Your task to perform on an android device: Open Google Image 0: 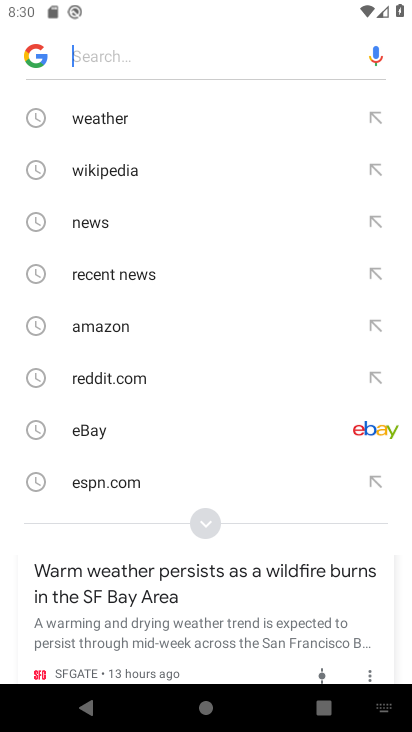
Step 0: press home button
Your task to perform on an android device: Open Google Image 1: 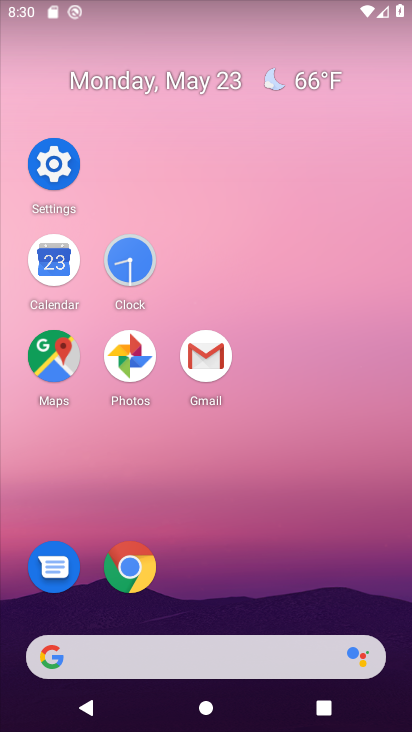
Step 1: click (281, 53)
Your task to perform on an android device: Open Google Image 2: 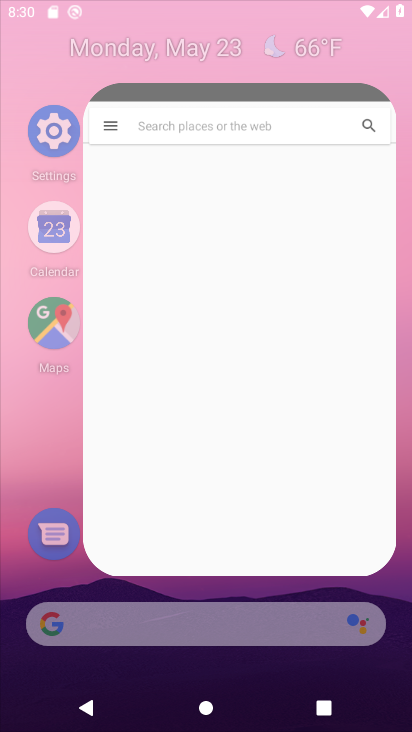
Step 2: drag from (295, 611) to (291, 129)
Your task to perform on an android device: Open Google Image 3: 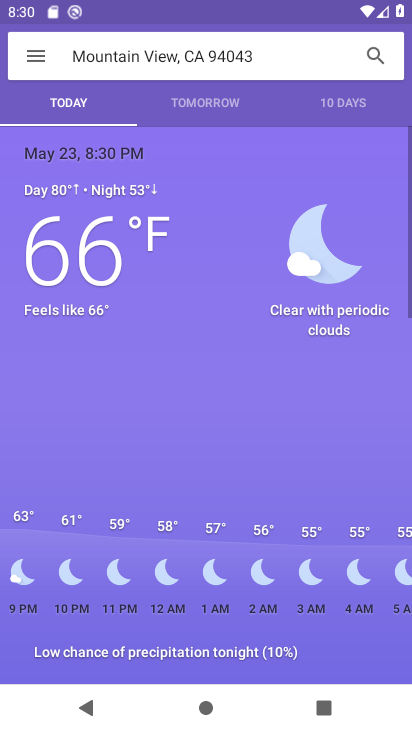
Step 3: press home button
Your task to perform on an android device: Open Google Image 4: 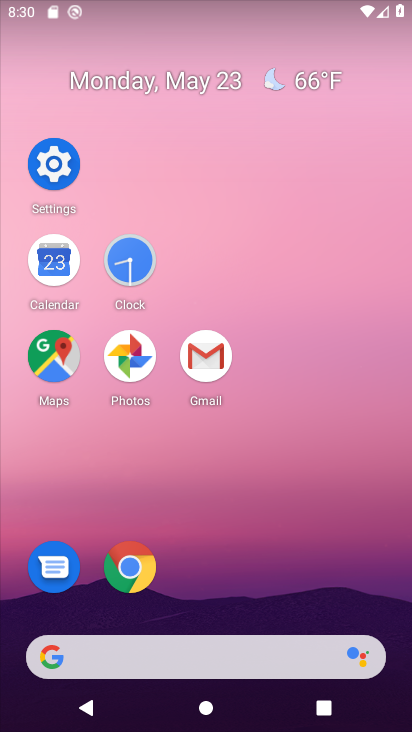
Step 4: drag from (214, 576) to (244, 162)
Your task to perform on an android device: Open Google Image 5: 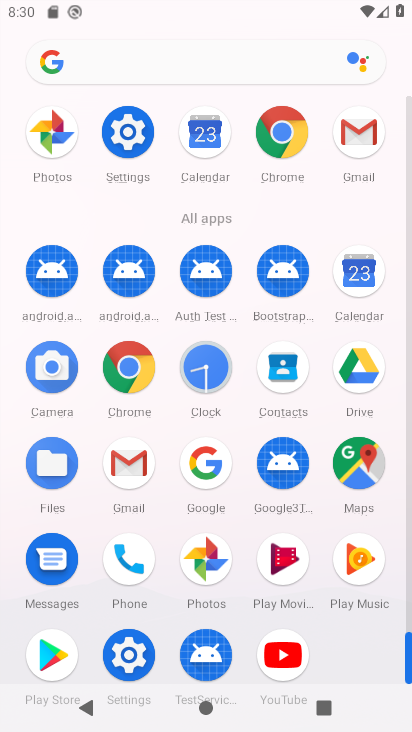
Step 5: drag from (207, 452) to (274, 365)
Your task to perform on an android device: Open Google Image 6: 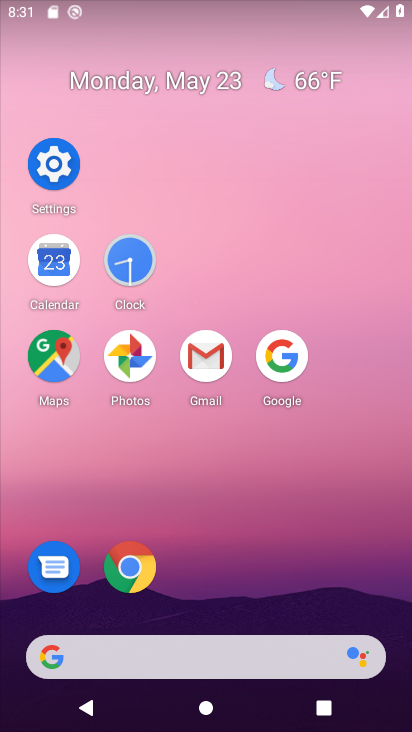
Step 6: click (274, 365)
Your task to perform on an android device: Open Google Image 7: 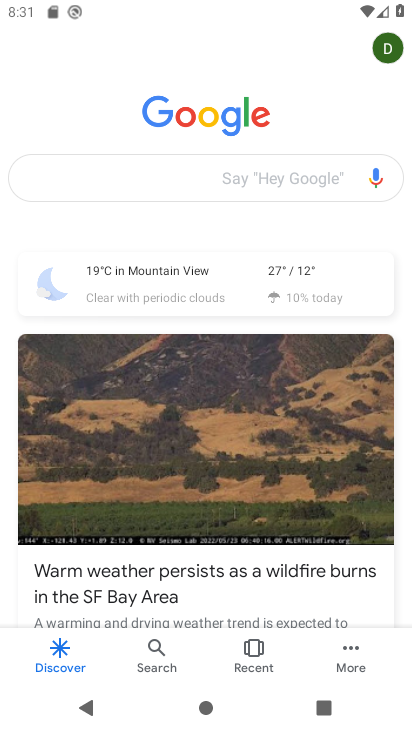
Step 7: task complete